Your task to perform on an android device: turn on improve location accuracy Image 0: 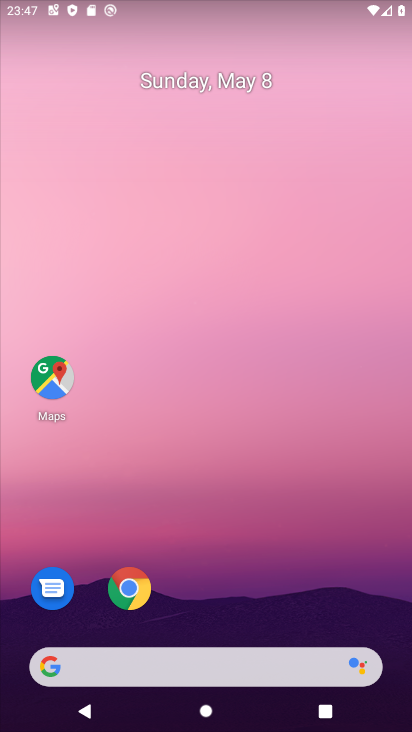
Step 0: drag from (312, 488) to (216, 95)
Your task to perform on an android device: turn on improve location accuracy Image 1: 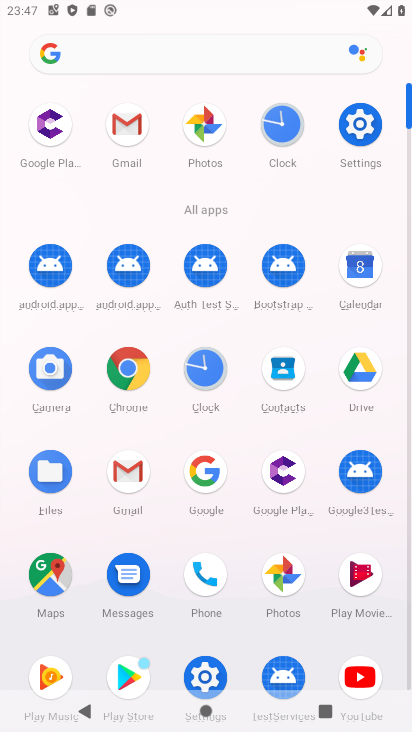
Step 1: click (359, 128)
Your task to perform on an android device: turn on improve location accuracy Image 2: 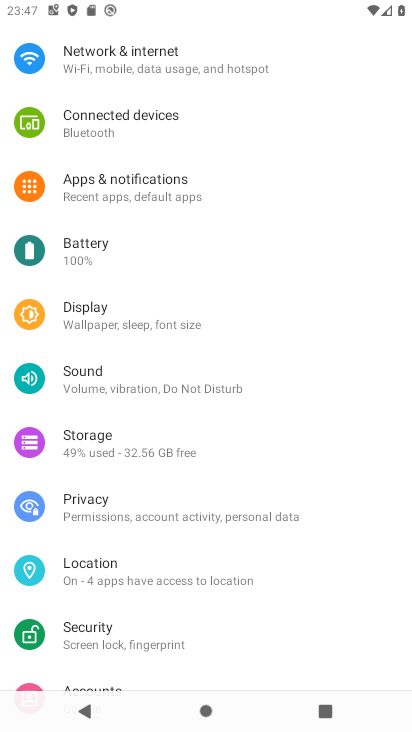
Step 2: click (80, 553)
Your task to perform on an android device: turn on improve location accuracy Image 3: 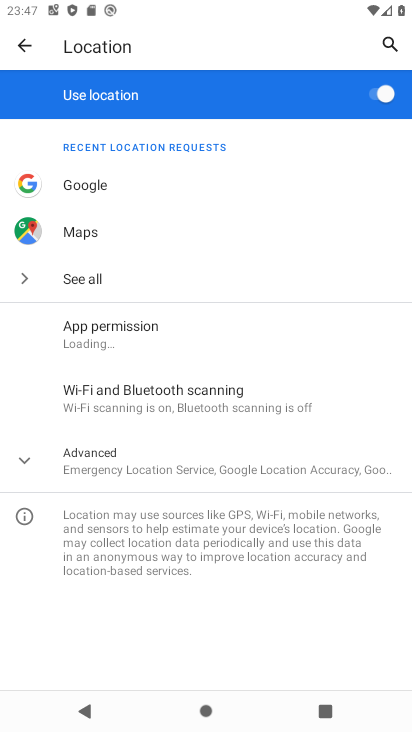
Step 3: click (55, 454)
Your task to perform on an android device: turn on improve location accuracy Image 4: 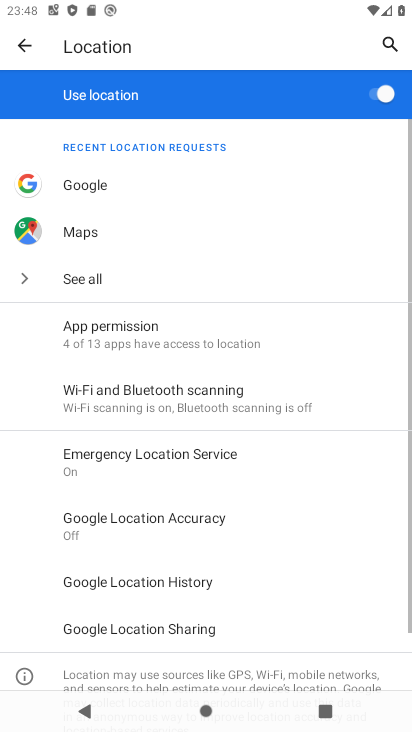
Step 4: click (159, 519)
Your task to perform on an android device: turn on improve location accuracy Image 5: 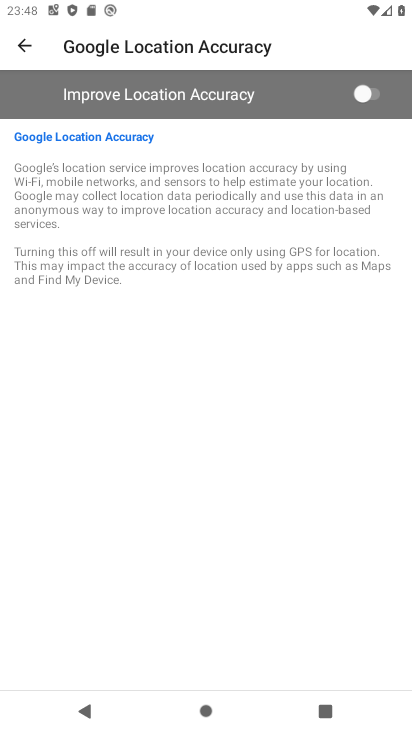
Step 5: click (361, 93)
Your task to perform on an android device: turn on improve location accuracy Image 6: 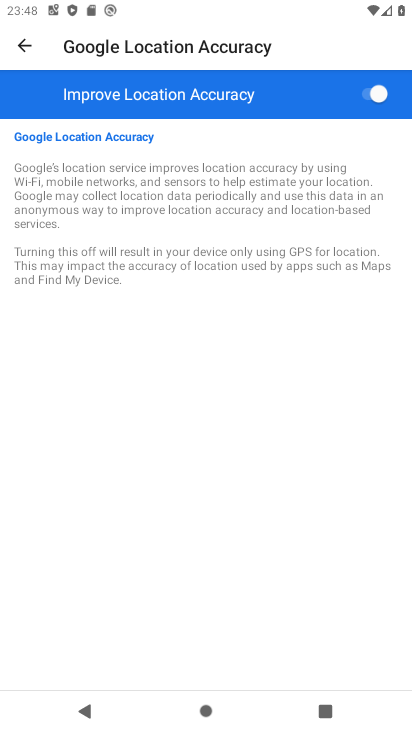
Step 6: task complete